Your task to perform on an android device: Open Maps and search for coffee Image 0: 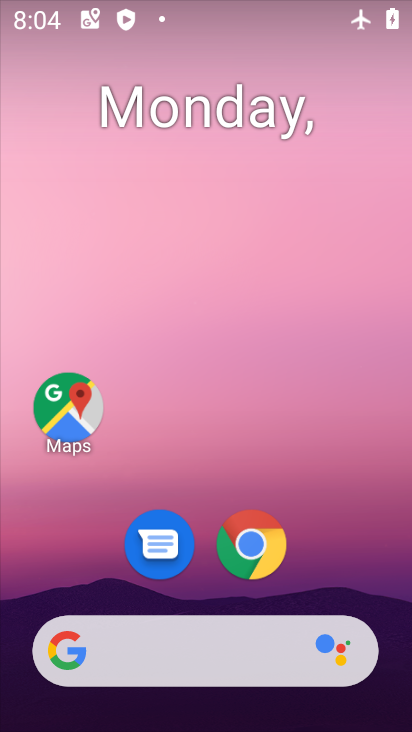
Step 0: click (65, 404)
Your task to perform on an android device: Open Maps and search for coffee Image 1: 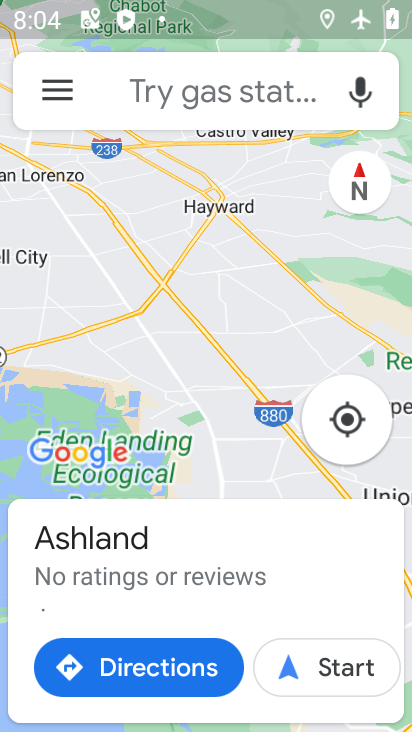
Step 1: click (158, 101)
Your task to perform on an android device: Open Maps and search for coffee Image 2: 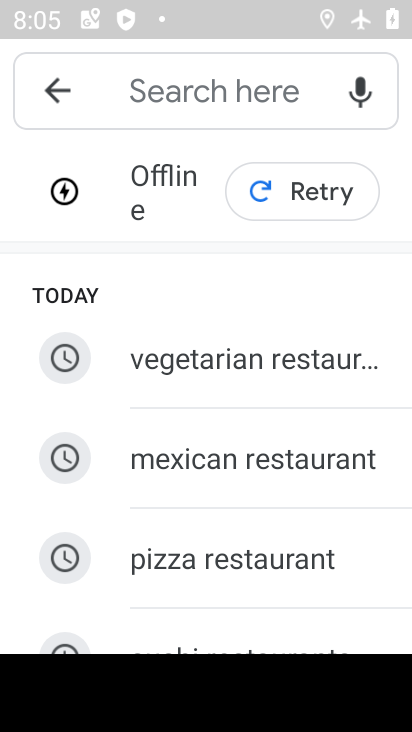
Step 2: type "coffee"
Your task to perform on an android device: Open Maps and search for coffee Image 3: 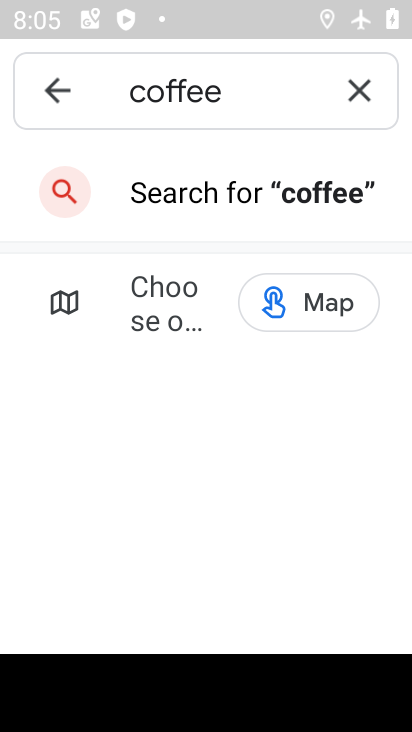
Step 3: click (298, 193)
Your task to perform on an android device: Open Maps and search for coffee Image 4: 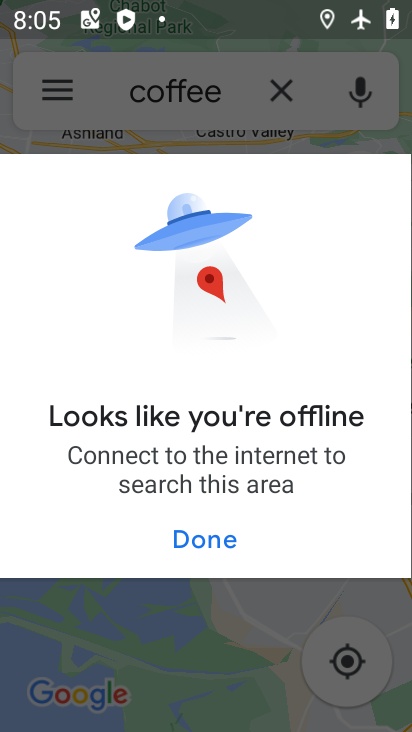
Step 4: task complete